Your task to perform on an android device: What's the weather? Image 0: 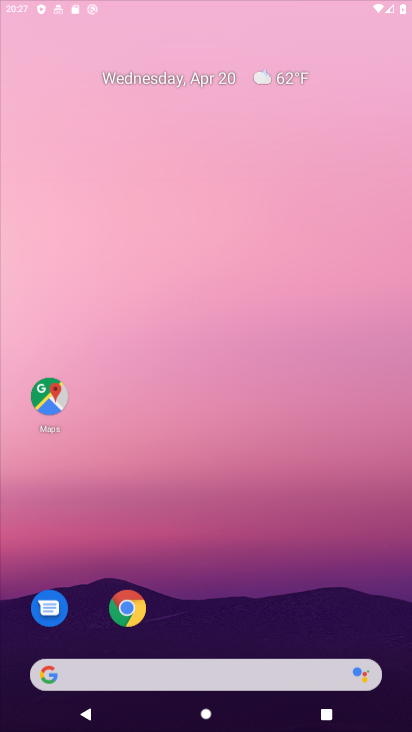
Step 0: click (123, 600)
Your task to perform on an android device: What's the weather? Image 1: 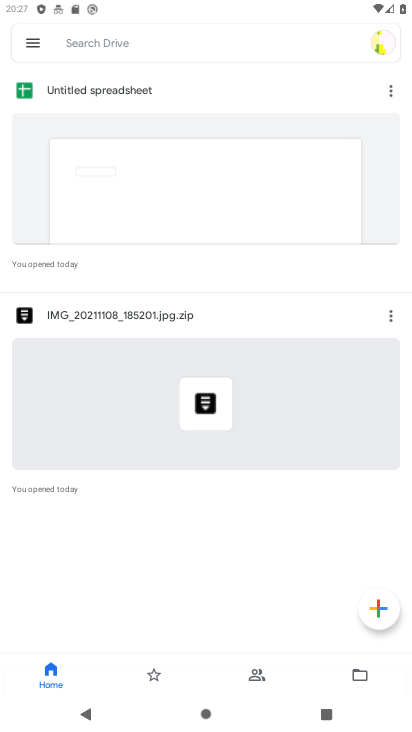
Step 1: press home button
Your task to perform on an android device: What's the weather? Image 2: 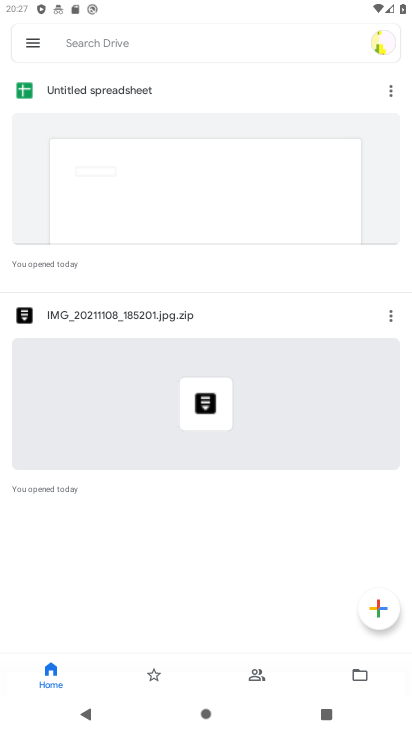
Step 2: press home button
Your task to perform on an android device: What's the weather? Image 3: 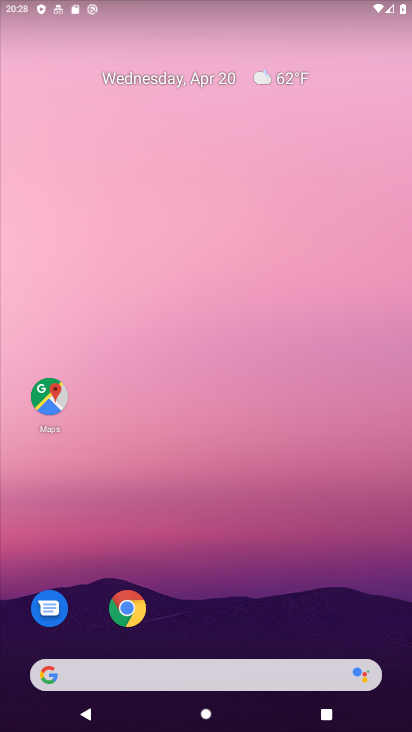
Step 3: click (121, 607)
Your task to perform on an android device: What's the weather? Image 4: 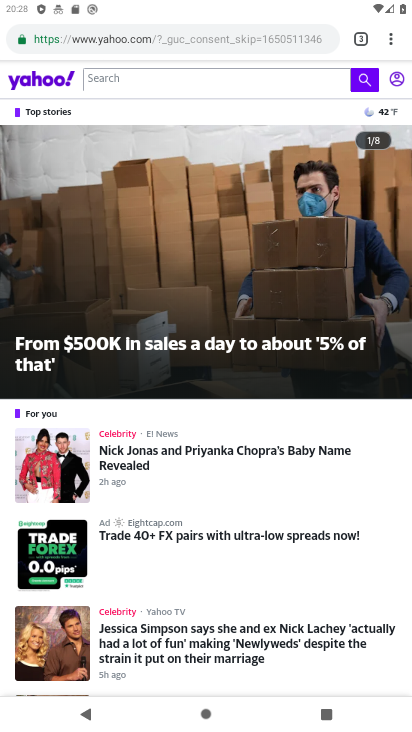
Step 4: click (291, 27)
Your task to perform on an android device: What's the weather? Image 5: 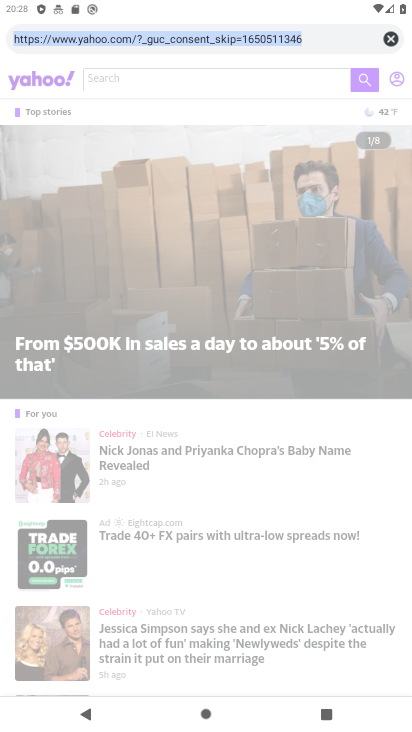
Step 5: click (291, 27)
Your task to perform on an android device: What's the weather? Image 6: 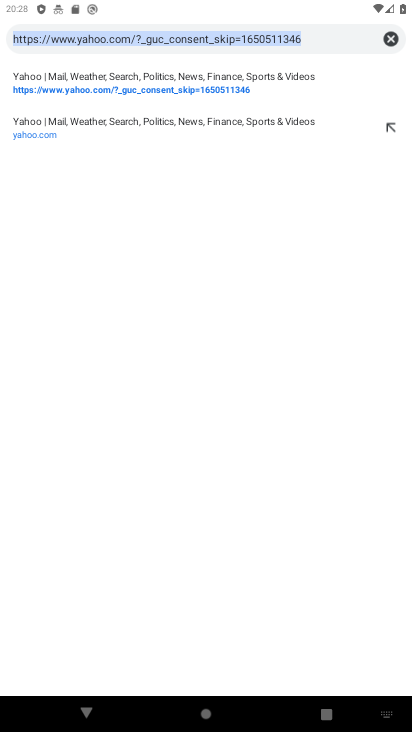
Step 6: click (291, 27)
Your task to perform on an android device: What's the weather? Image 7: 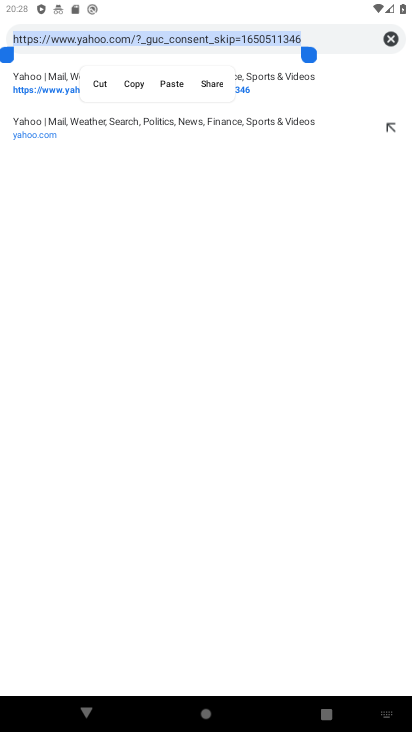
Step 7: click (392, 39)
Your task to perform on an android device: What's the weather? Image 8: 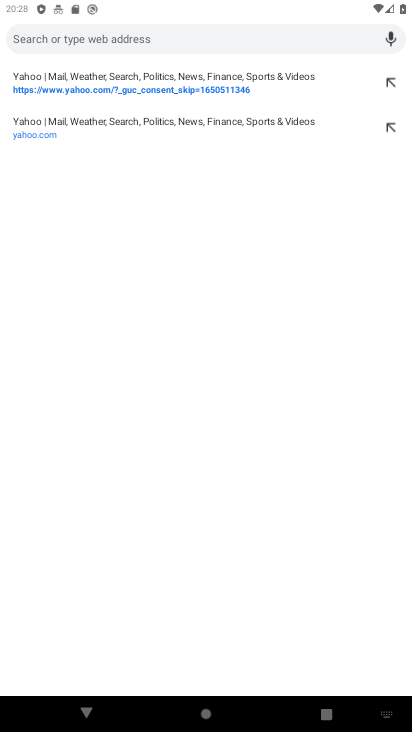
Step 8: click (287, 32)
Your task to perform on an android device: What's the weather? Image 9: 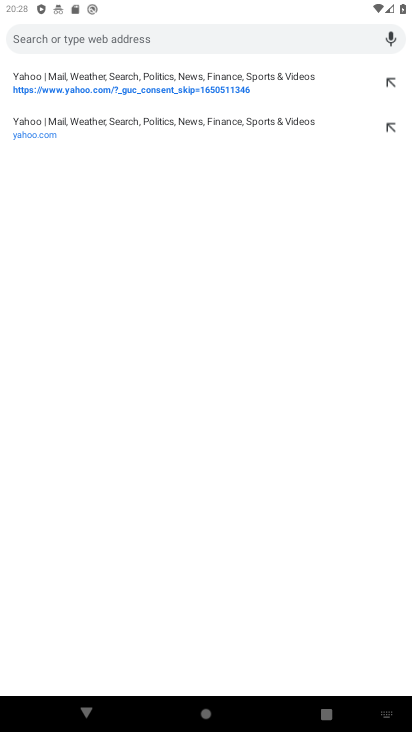
Step 9: type "weather"
Your task to perform on an android device: What's the weather? Image 10: 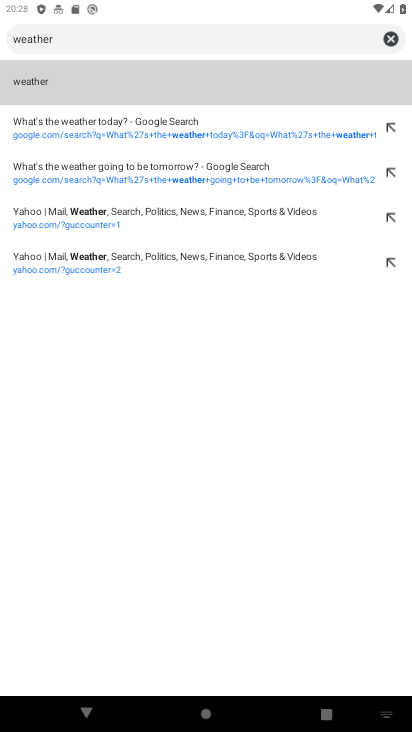
Step 10: click (49, 80)
Your task to perform on an android device: What's the weather? Image 11: 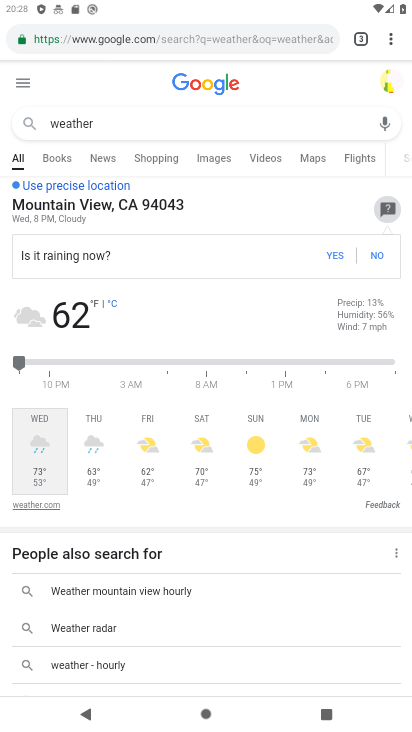
Step 11: task complete